Your task to perform on an android device: Open the phone app and click the voicemail tab. Image 0: 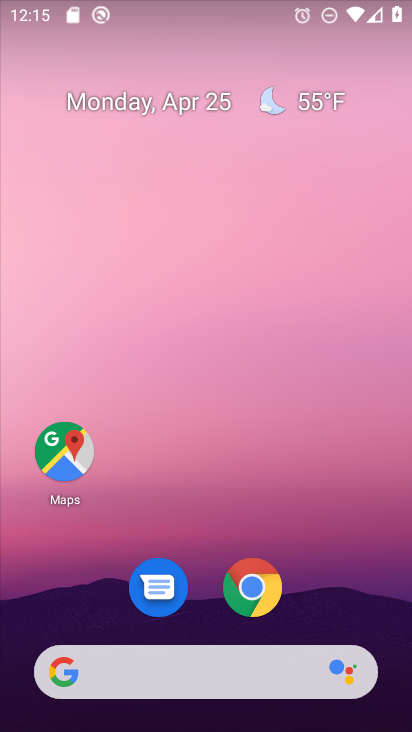
Step 0: drag from (326, 528) to (325, 92)
Your task to perform on an android device: Open the phone app and click the voicemail tab. Image 1: 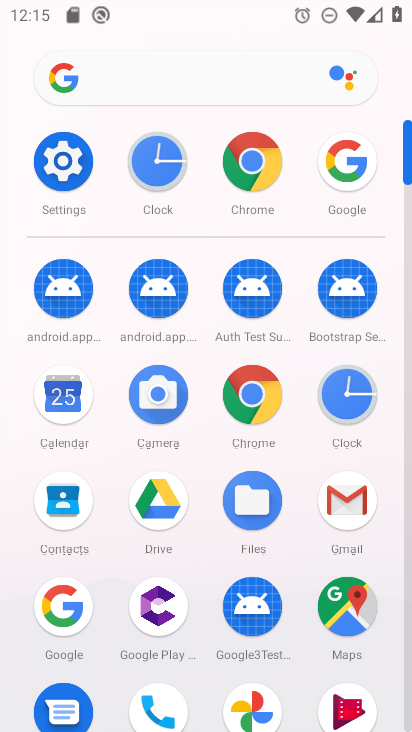
Step 1: drag from (205, 588) to (262, 263)
Your task to perform on an android device: Open the phone app and click the voicemail tab. Image 2: 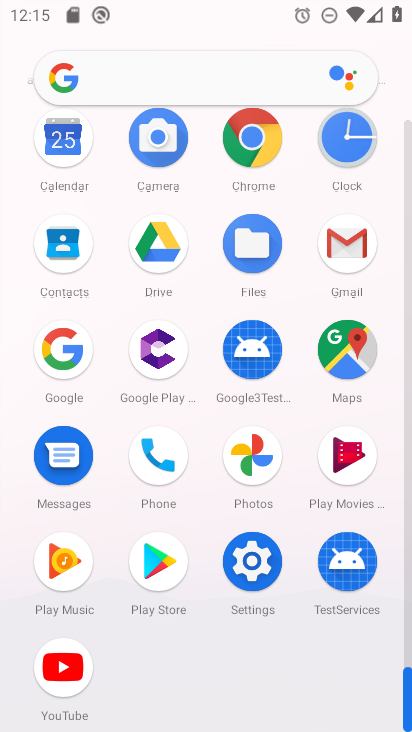
Step 2: click (157, 471)
Your task to perform on an android device: Open the phone app and click the voicemail tab. Image 3: 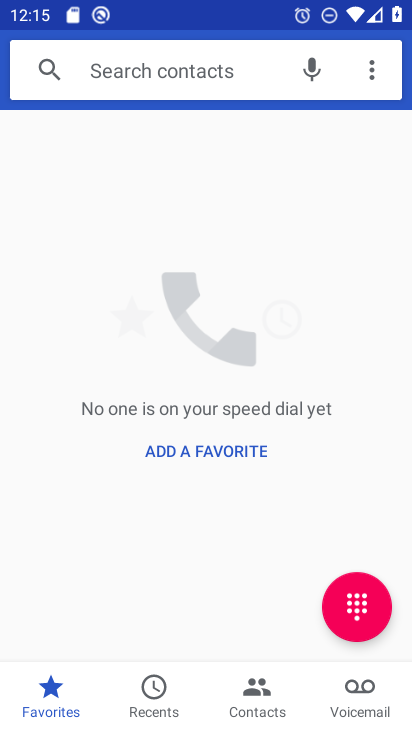
Step 3: click (371, 676)
Your task to perform on an android device: Open the phone app and click the voicemail tab. Image 4: 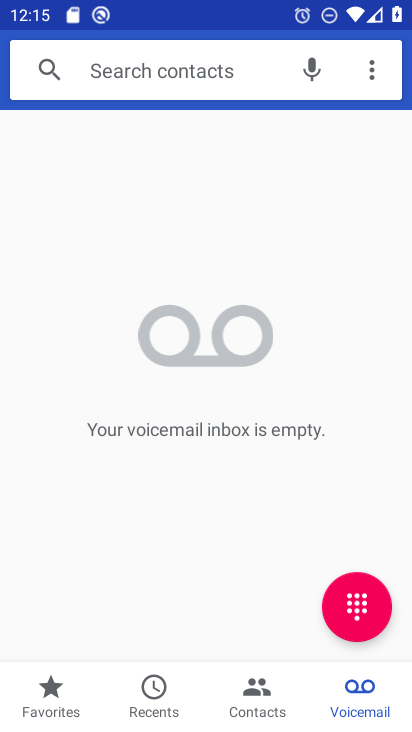
Step 4: task complete